Your task to perform on an android device: Open Google Maps Image 0: 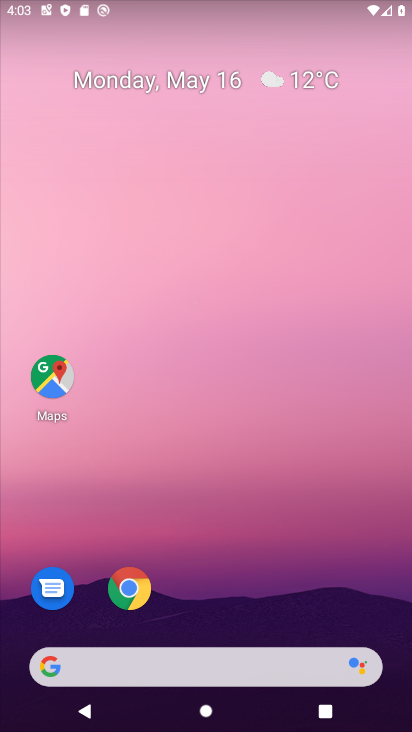
Step 0: click (32, 385)
Your task to perform on an android device: Open Google Maps Image 1: 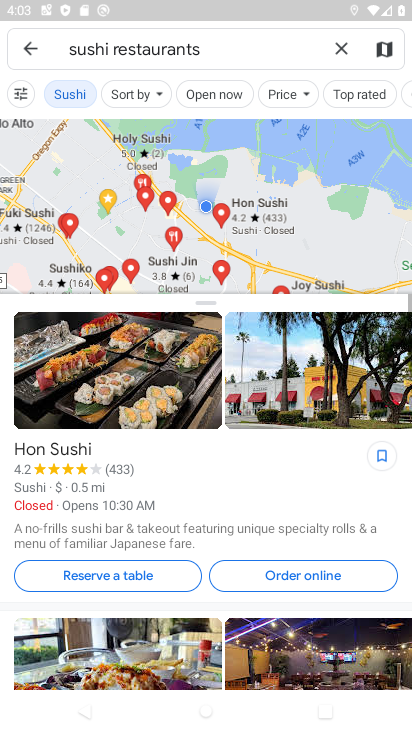
Step 1: click (28, 57)
Your task to perform on an android device: Open Google Maps Image 2: 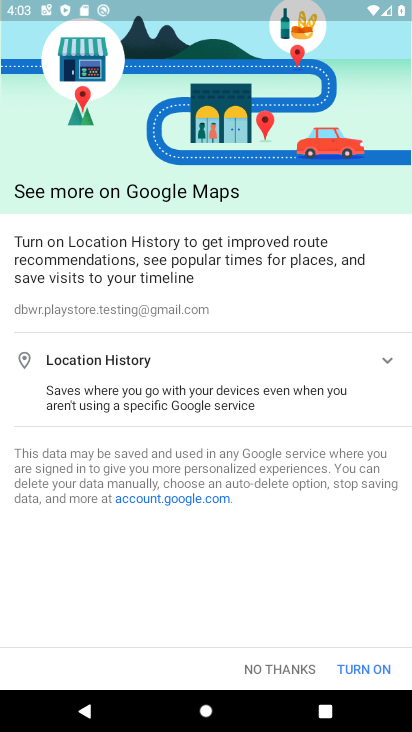
Step 2: task complete